Your task to perform on an android device: Go to location settings Image 0: 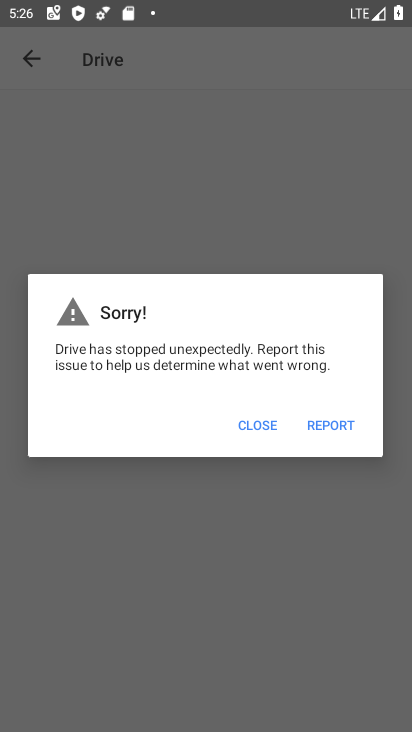
Step 0: press home button
Your task to perform on an android device: Go to location settings Image 1: 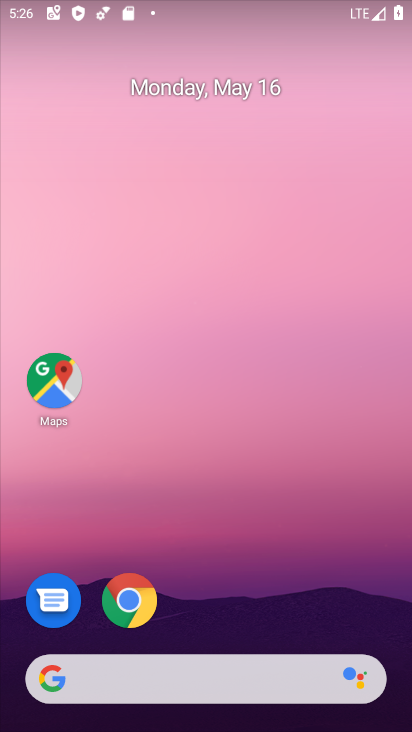
Step 1: drag from (216, 636) to (305, 27)
Your task to perform on an android device: Go to location settings Image 2: 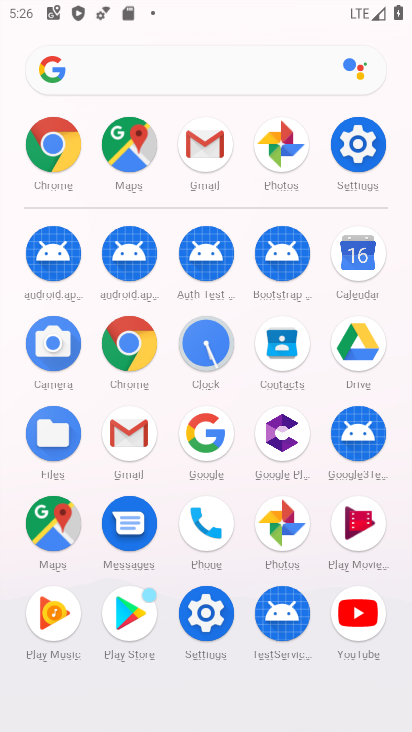
Step 2: click (207, 602)
Your task to perform on an android device: Go to location settings Image 3: 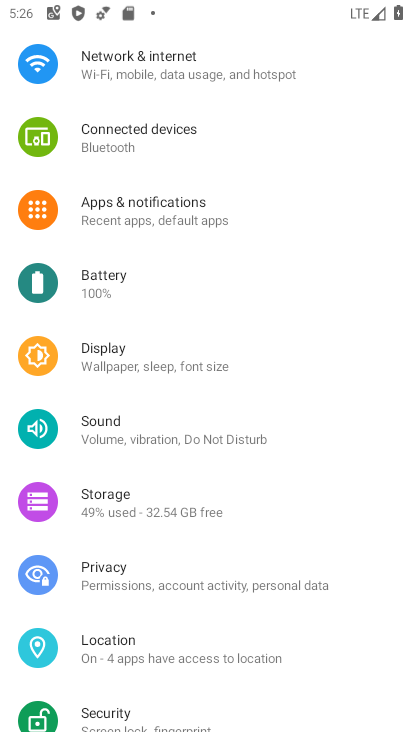
Step 3: click (85, 629)
Your task to perform on an android device: Go to location settings Image 4: 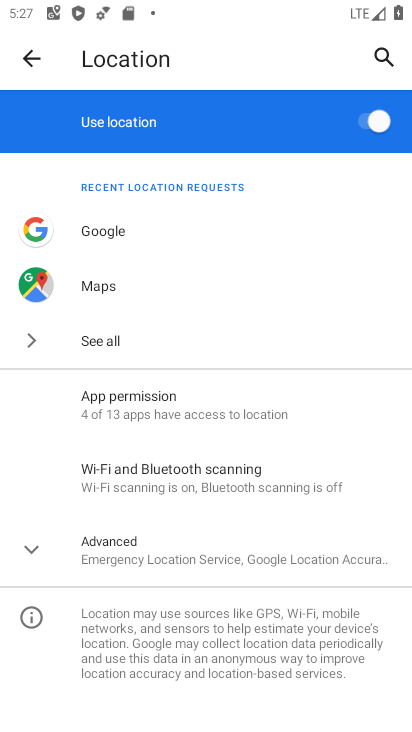
Step 4: task complete